Your task to perform on an android device: Open display settings Image 0: 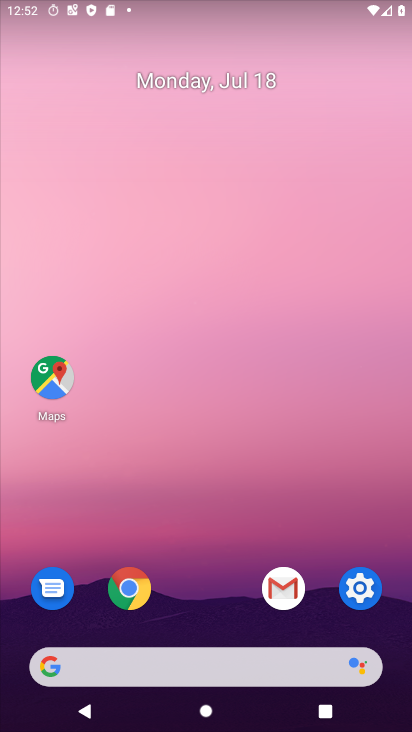
Step 0: click (360, 587)
Your task to perform on an android device: Open display settings Image 1: 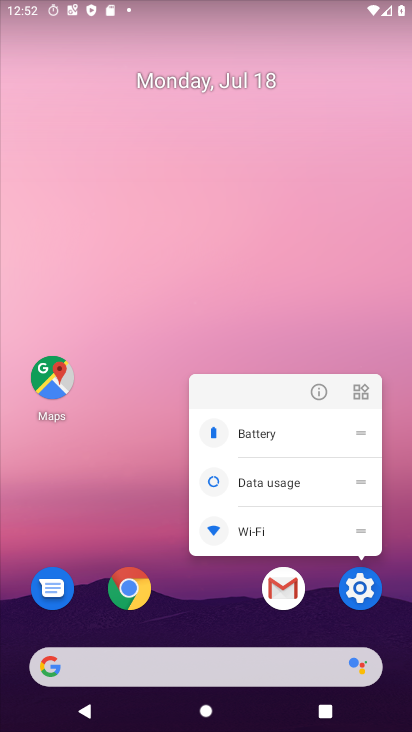
Step 1: click (357, 591)
Your task to perform on an android device: Open display settings Image 2: 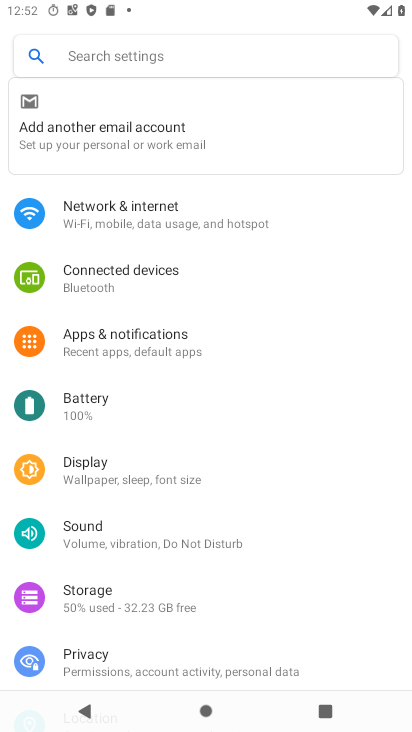
Step 2: click (90, 459)
Your task to perform on an android device: Open display settings Image 3: 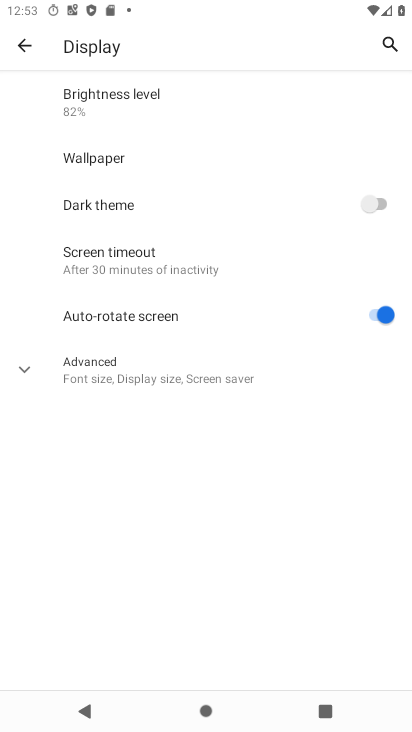
Step 3: task complete